Your task to perform on an android device: open sync settings in chrome Image 0: 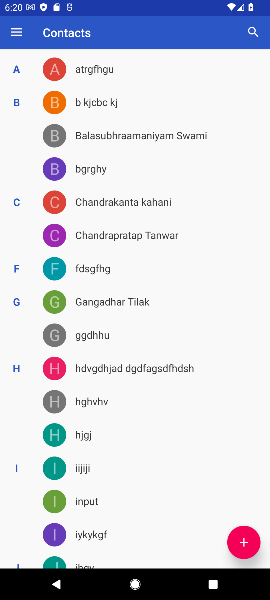
Step 0: press home button
Your task to perform on an android device: open sync settings in chrome Image 1: 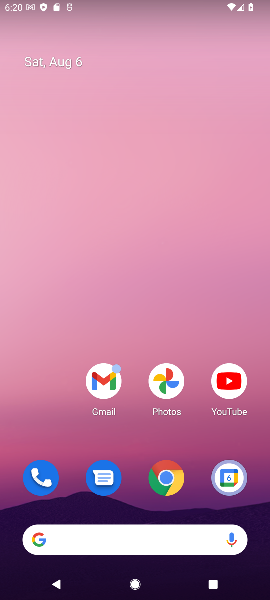
Step 1: click (172, 488)
Your task to perform on an android device: open sync settings in chrome Image 2: 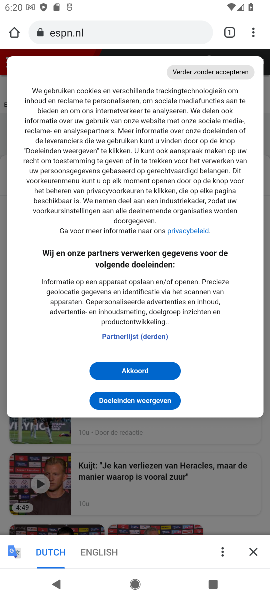
Step 2: click (252, 29)
Your task to perform on an android device: open sync settings in chrome Image 3: 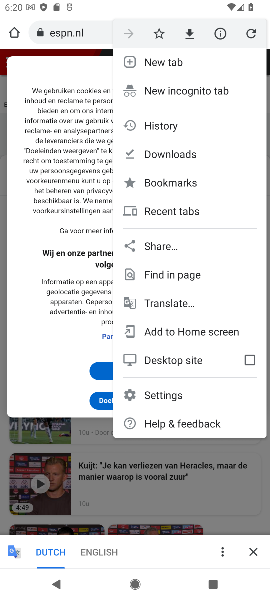
Step 3: click (166, 393)
Your task to perform on an android device: open sync settings in chrome Image 4: 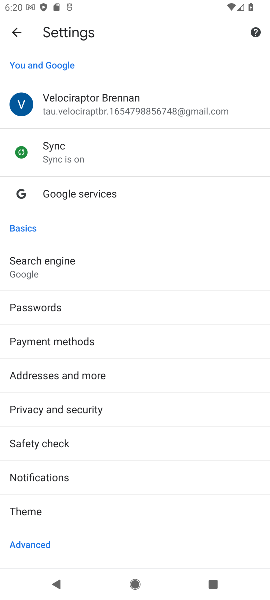
Step 4: click (74, 147)
Your task to perform on an android device: open sync settings in chrome Image 5: 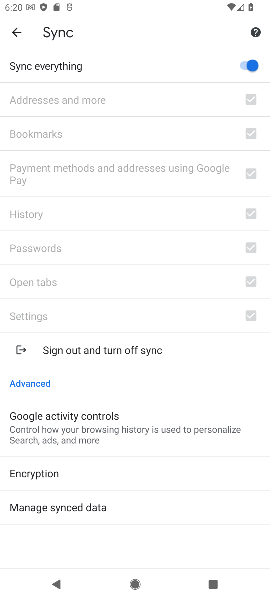
Step 5: task complete